Your task to perform on an android device: Go to notification settings Image 0: 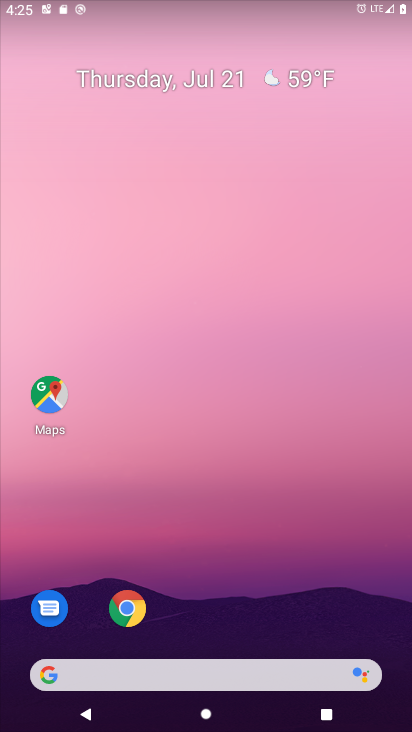
Step 0: drag from (190, 663) to (237, 14)
Your task to perform on an android device: Go to notification settings Image 1: 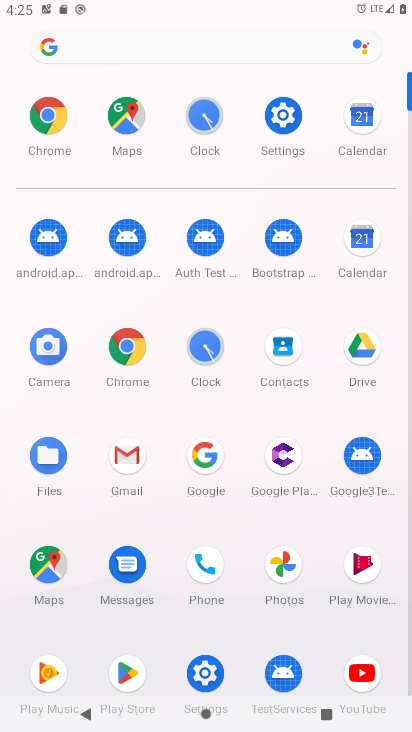
Step 1: click (287, 121)
Your task to perform on an android device: Go to notification settings Image 2: 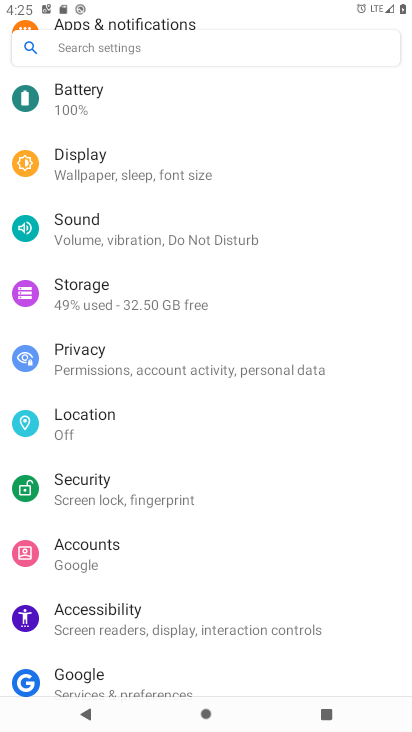
Step 2: drag from (150, 210) to (169, 690)
Your task to perform on an android device: Go to notification settings Image 3: 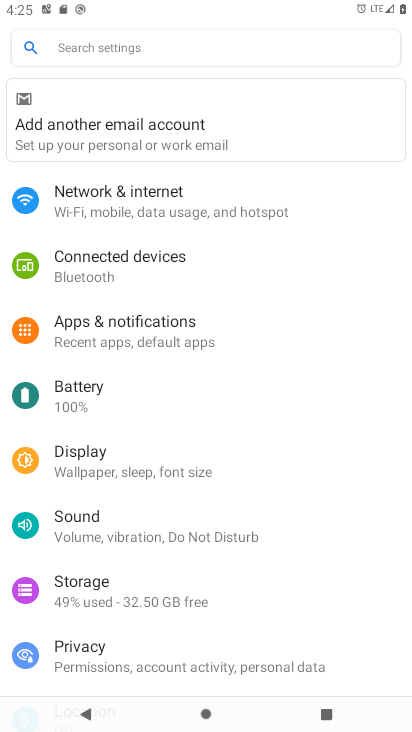
Step 3: click (146, 335)
Your task to perform on an android device: Go to notification settings Image 4: 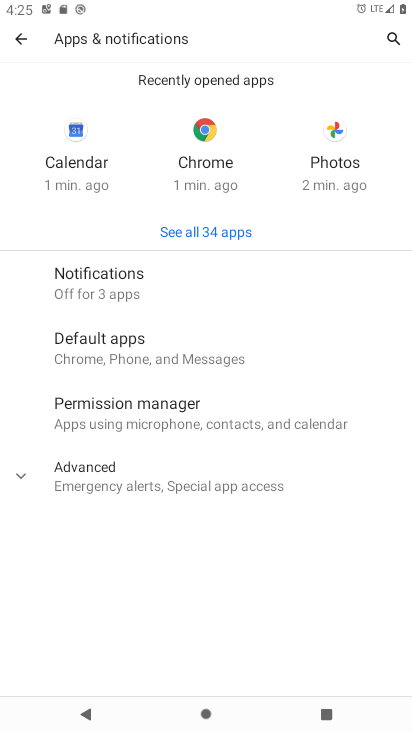
Step 4: click (121, 296)
Your task to perform on an android device: Go to notification settings Image 5: 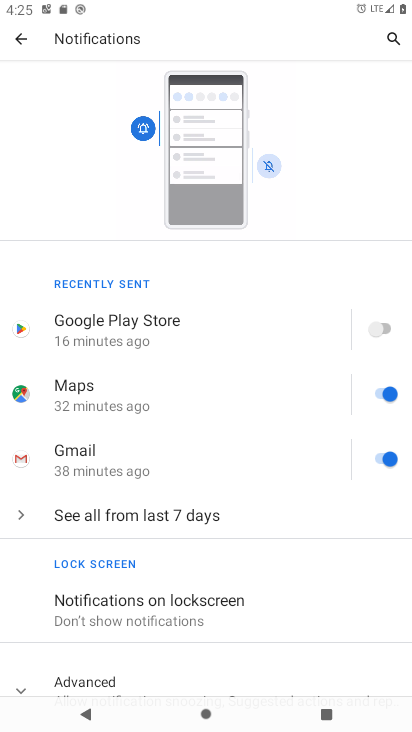
Step 5: task complete